Your task to perform on an android device: clear history in the chrome app Image 0: 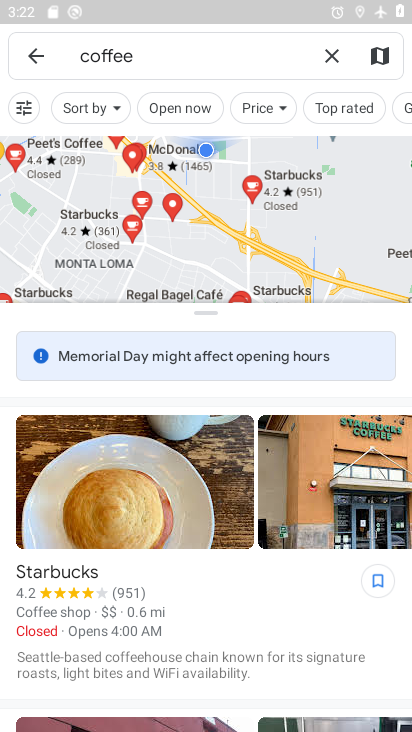
Step 0: press home button
Your task to perform on an android device: clear history in the chrome app Image 1: 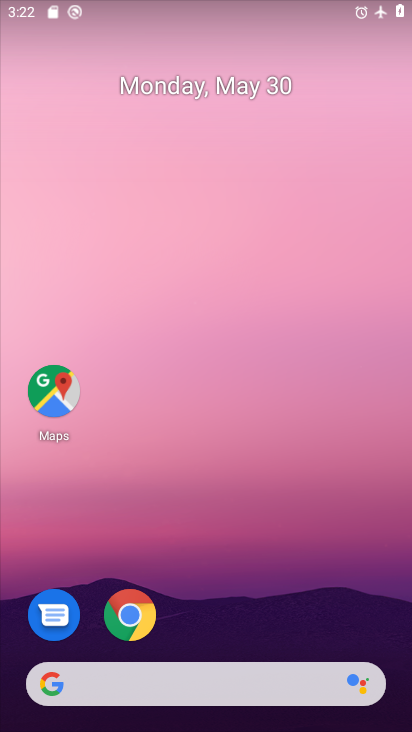
Step 1: click (128, 615)
Your task to perform on an android device: clear history in the chrome app Image 2: 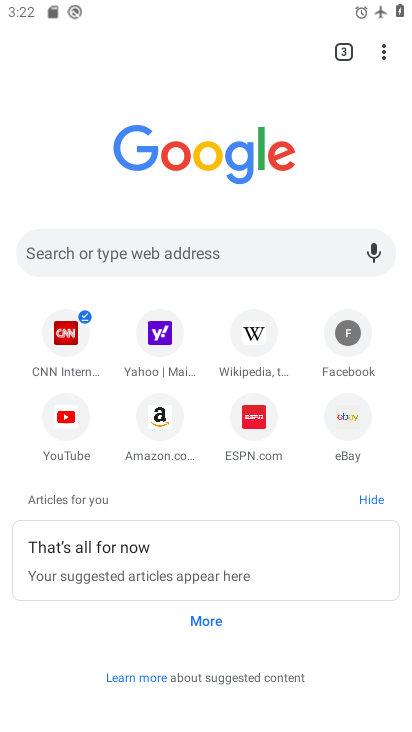
Step 2: click (384, 57)
Your task to perform on an android device: clear history in the chrome app Image 3: 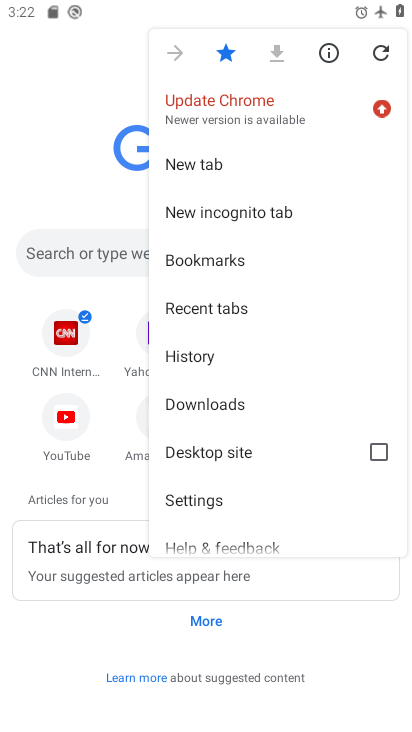
Step 3: click (217, 356)
Your task to perform on an android device: clear history in the chrome app Image 4: 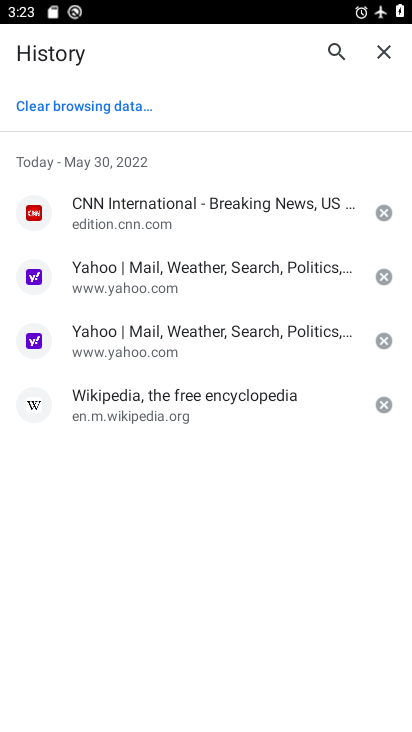
Step 4: click (126, 103)
Your task to perform on an android device: clear history in the chrome app Image 5: 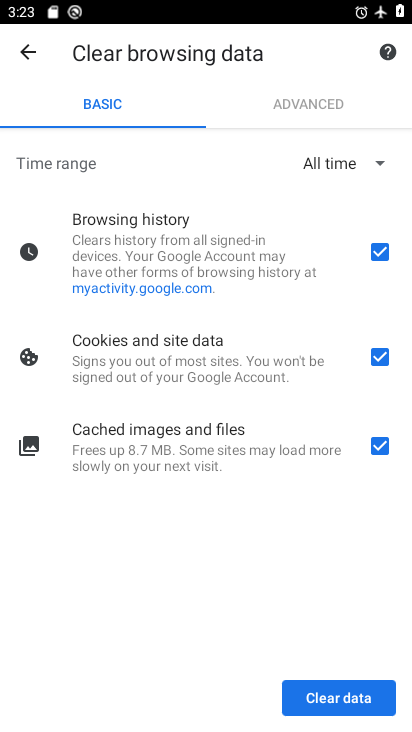
Step 5: click (359, 700)
Your task to perform on an android device: clear history in the chrome app Image 6: 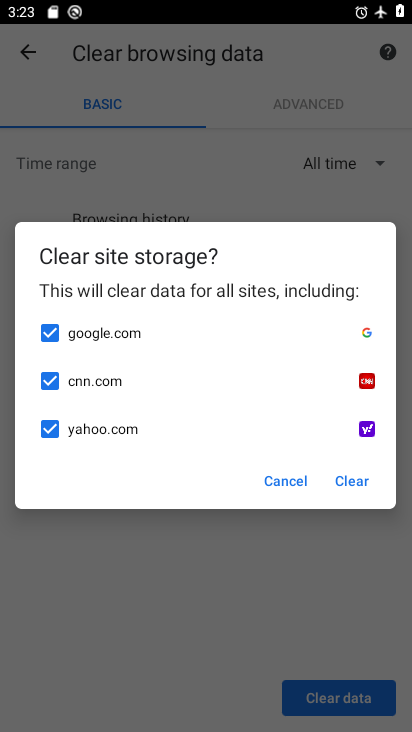
Step 6: click (364, 480)
Your task to perform on an android device: clear history in the chrome app Image 7: 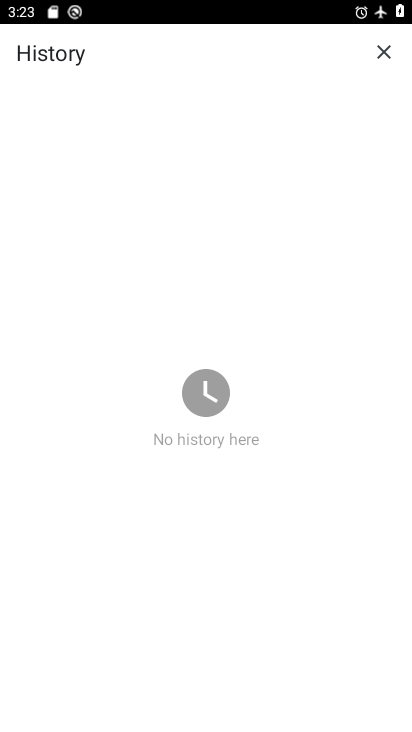
Step 7: task complete